Your task to perform on an android device: turn on airplane mode Image 0: 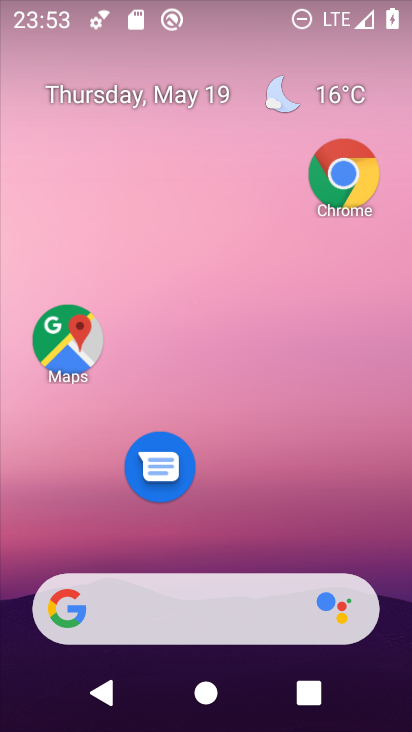
Step 0: drag from (226, 489) to (223, 204)
Your task to perform on an android device: turn on airplane mode Image 1: 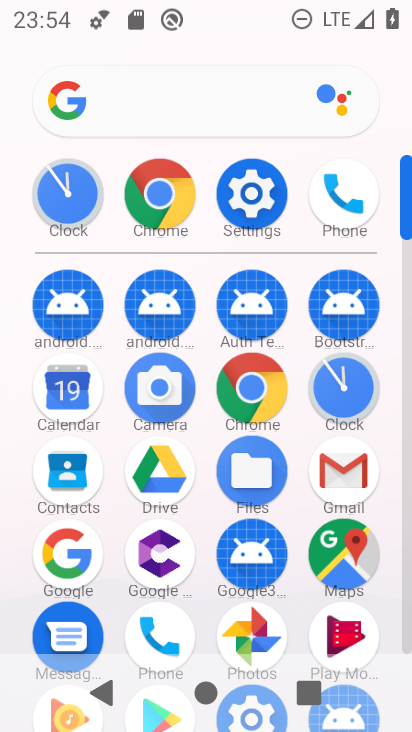
Step 1: click (254, 189)
Your task to perform on an android device: turn on airplane mode Image 2: 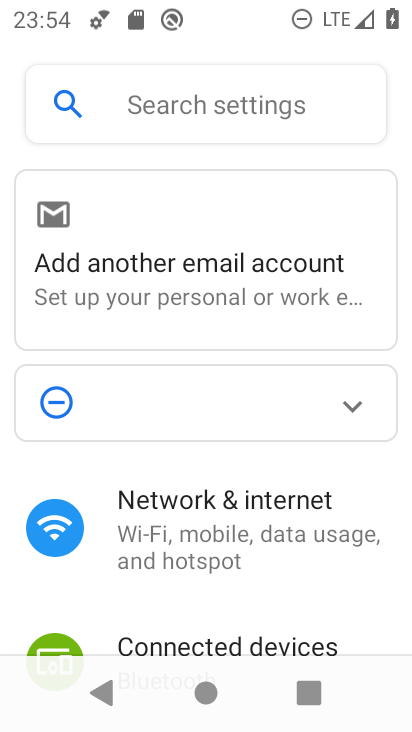
Step 2: click (213, 539)
Your task to perform on an android device: turn on airplane mode Image 3: 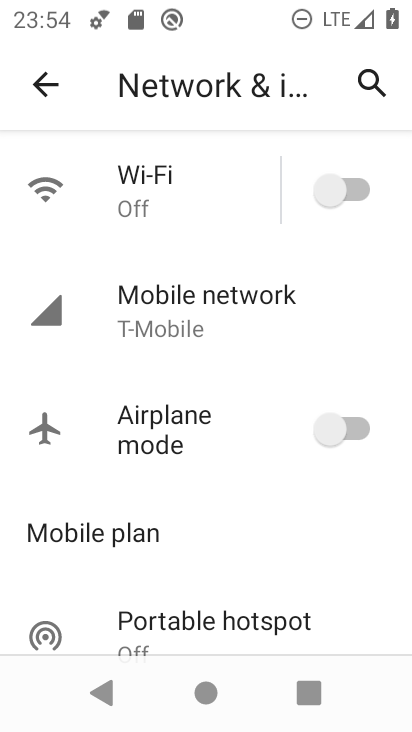
Step 3: click (346, 429)
Your task to perform on an android device: turn on airplane mode Image 4: 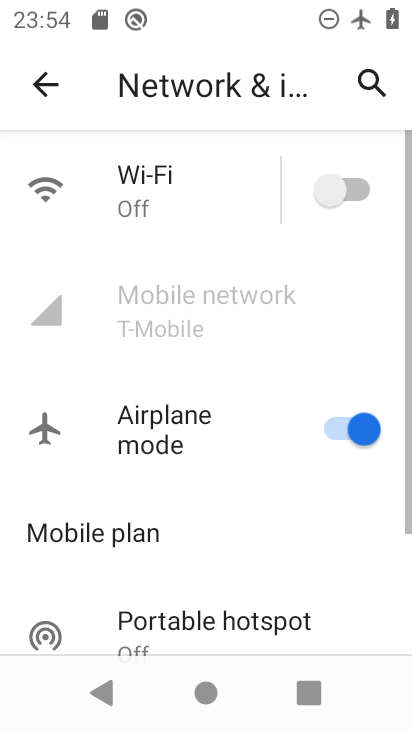
Step 4: task complete